Your task to perform on an android device: set an alarm Image 0: 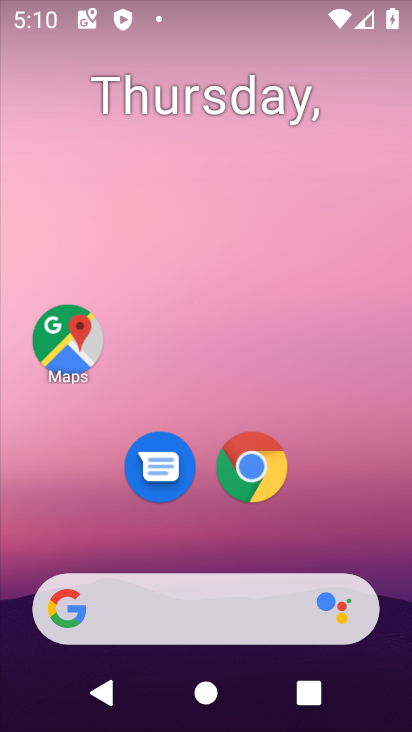
Step 0: drag from (369, 492) to (294, 110)
Your task to perform on an android device: set an alarm Image 1: 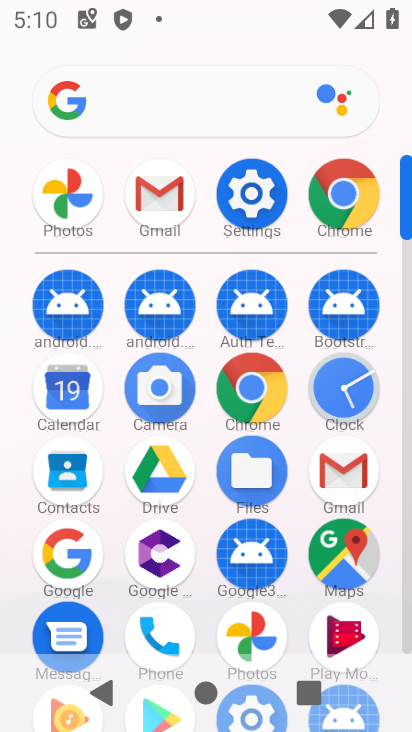
Step 1: click (343, 393)
Your task to perform on an android device: set an alarm Image 2: 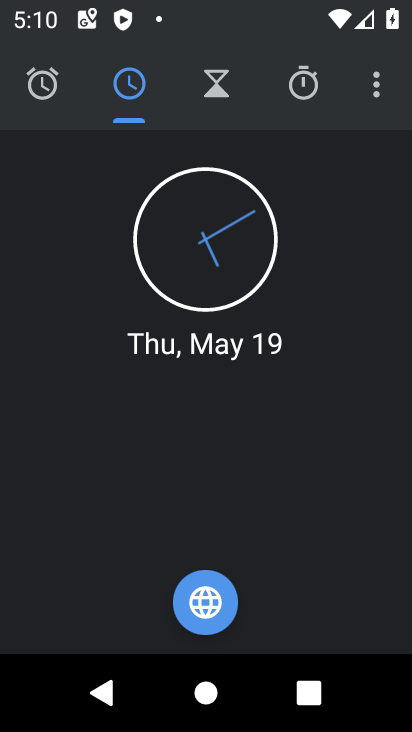
Step 2: click (63, 89)
Your task to perform on an android device: set an alarm Image 3: 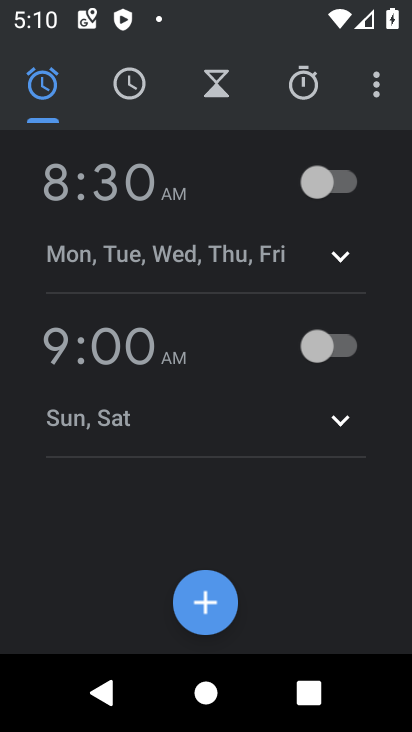
Step 3: click (203, 587)
Your task to perform on an android device: set an alarm Image 4: 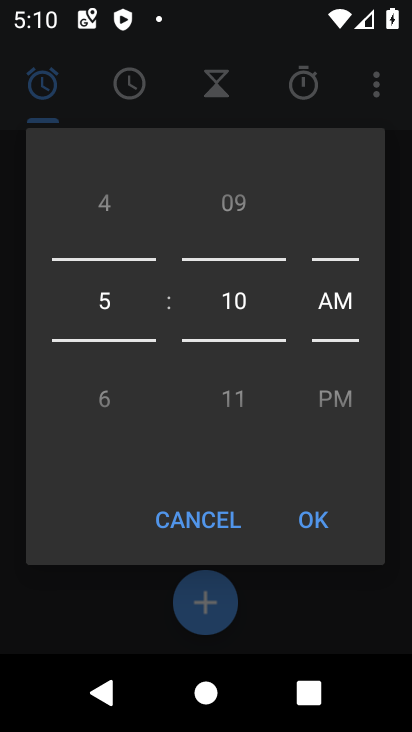
Step 4: click (305, 522)
Your task to perform on an android device: set an alarm Image 5: 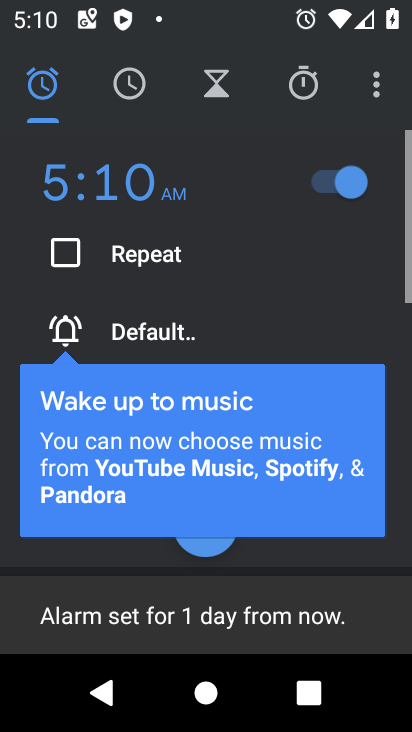
Step 5: task complete